Your task to perform on an android device: toggle airplane mode Image 0: 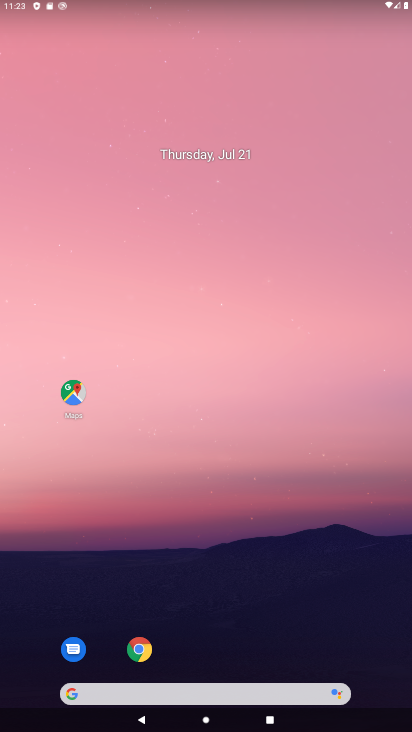
Step 0: drag from (211, 581) to (121, 116)
Your task to perform on an android device: toggle airplane mode Image 1: 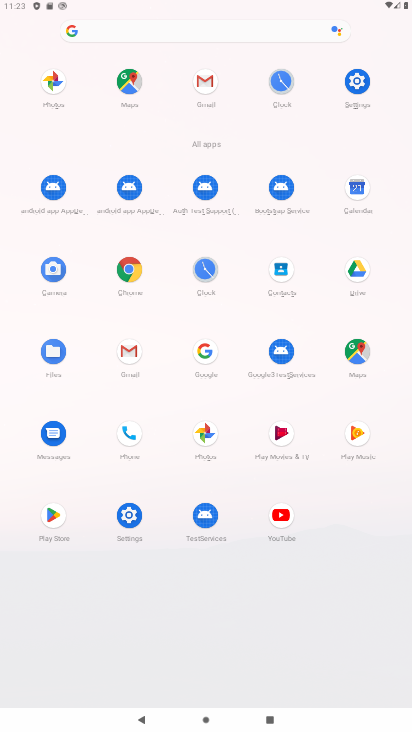
Step 1: click (360, 79)
Your task to perform on an android device: toggle airplane mode Image 2: 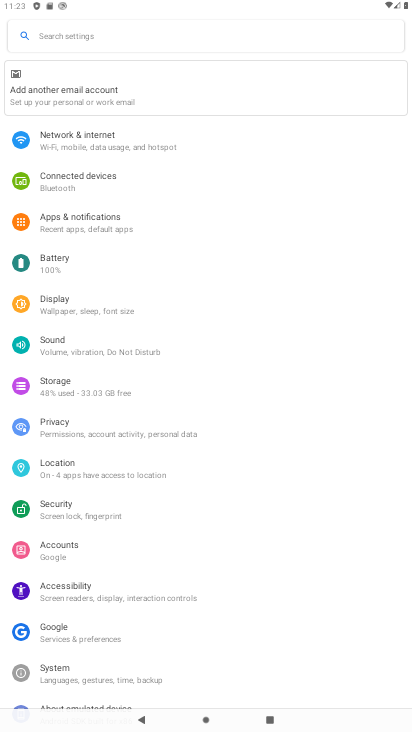
Step 2: click (79, 135)
Your task to perform on an android device: toggle airplane mode Image 3: 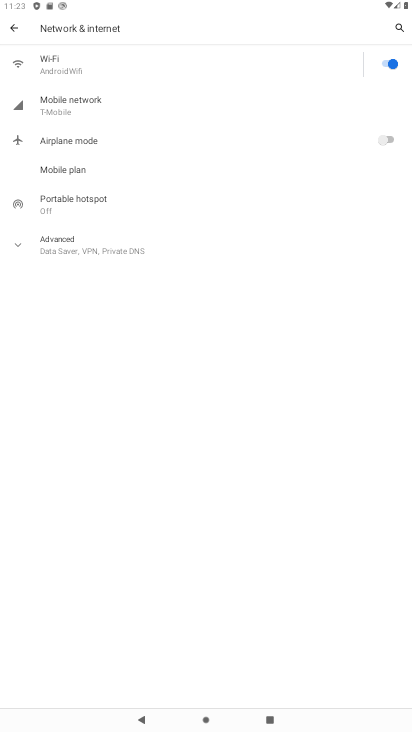
Step 3: click (382, 140)
Your task to perform on an android device: toggle airplane mode Image 4: 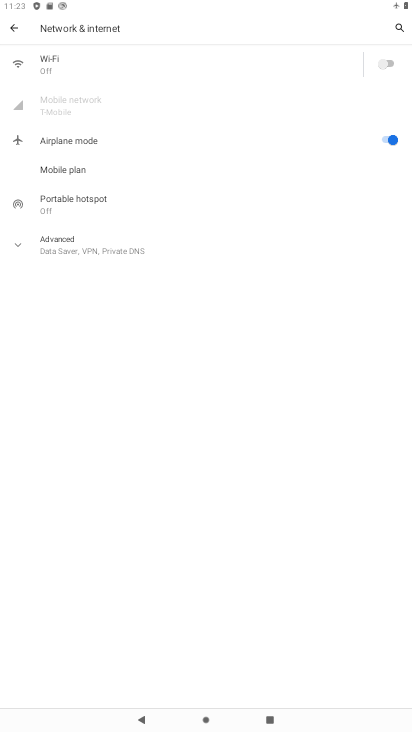
Step 4: task complete